Your task to perform on an android device: turn off data saver in the chrome app Image 0: 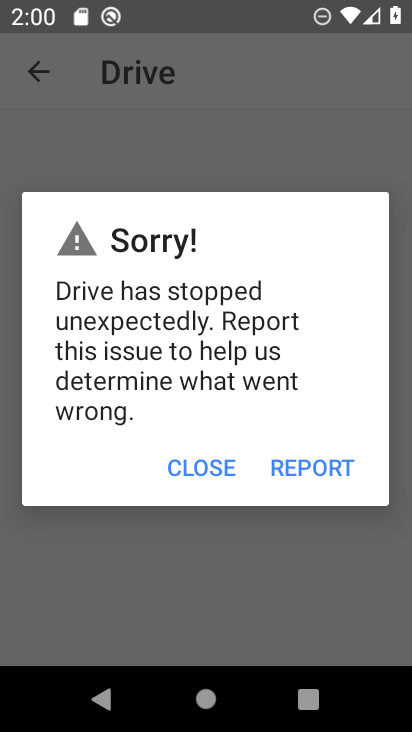
Step 0: click (235, 456)
Your task to perform on an android device: turn off data saver in the chrome app Image 1: 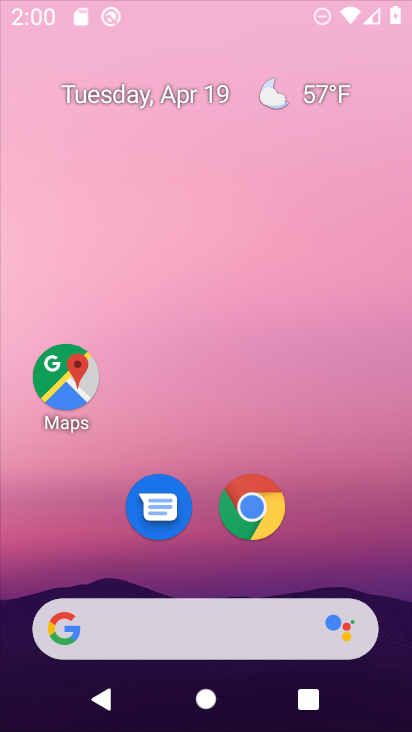
Step 1: press home button
Your task to perform on an android device: turn off data saver in the chrome app Image 2: 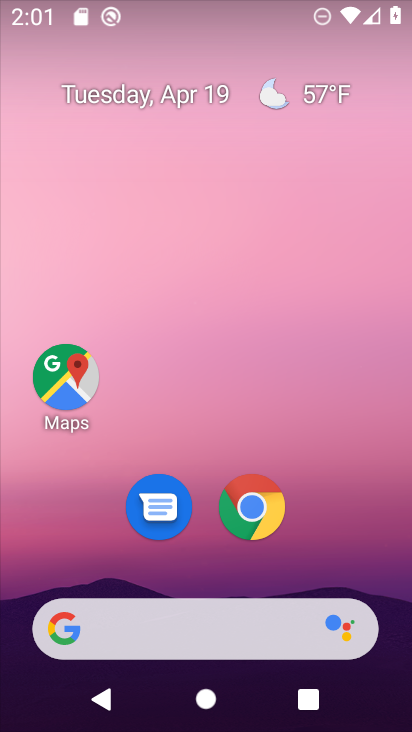
Step 2: click (262, 521)
Your task to perform on an android device: turn off data saver in the chrome app Image 3: 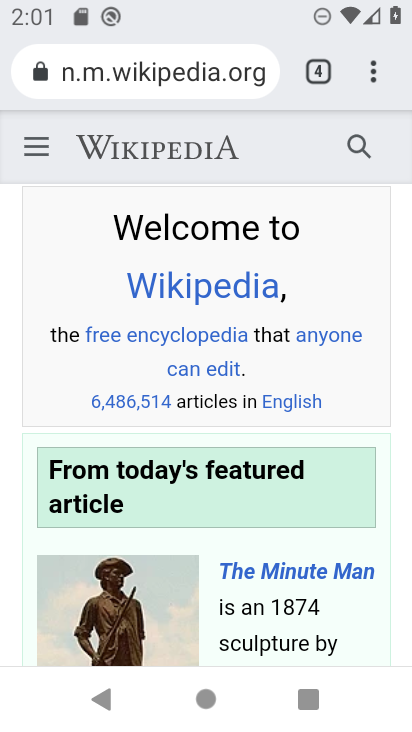
Step 3: click (388, 70)
Your task to perform on an android device: turn off data saver in the chrome app Image 4: 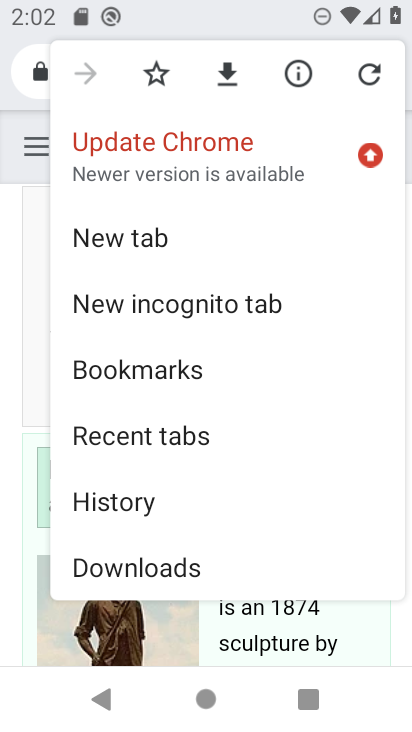
Step 4: drag from (220, 588) to (219, 329)
Your task to perform on an android device: turn off data saver in the chrome app Image 5: 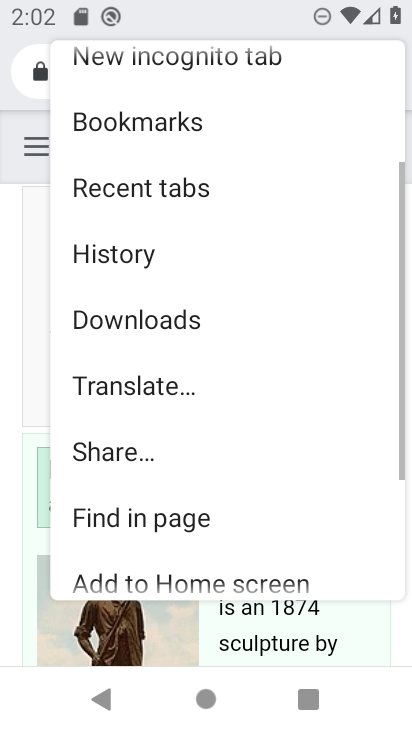
Step 5: drag from (182, 535) to (184, 234)
Your task to perform on an android device: turn off data saver in the chrome app Image 6: 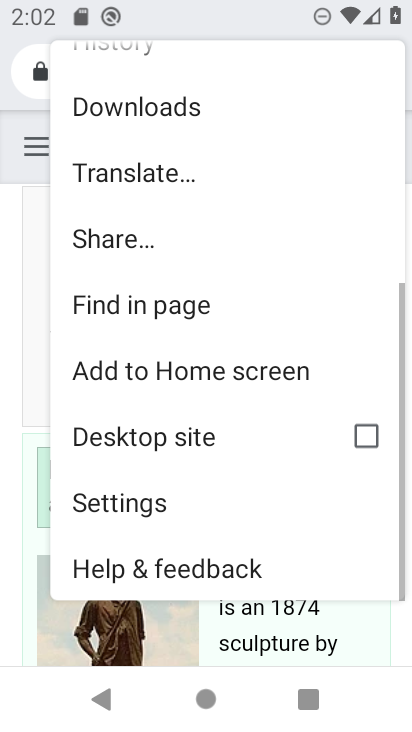
Step 6: click (191, 485)
Your task to perform on an android device: turn off data saver in the chrome app Image 7: 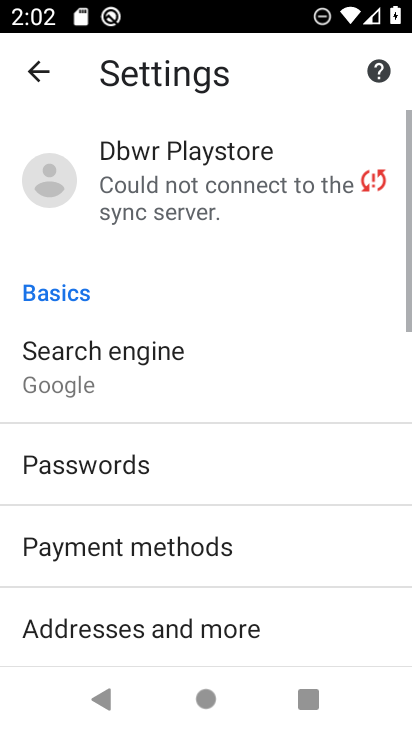
Step 7: drag from (209, 510) to (208, 160)
Your task to perform on an android device: turn off data saver in the chrome app Image 8: 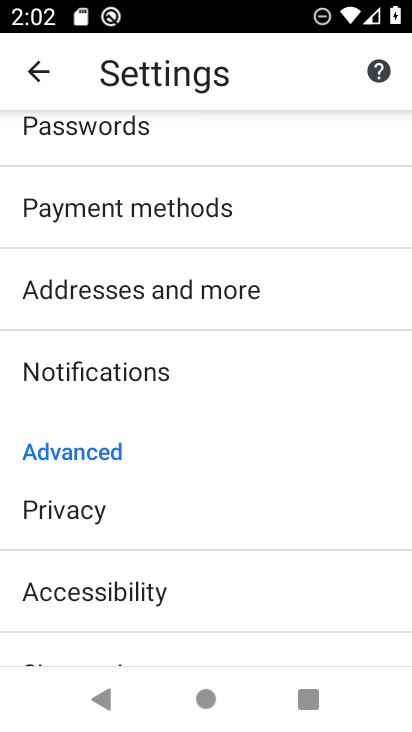
Step 8: drag from (182, 569) to (203, 337)
Your task to perform on an android device: turn off data saver in the chrome app Image 9: 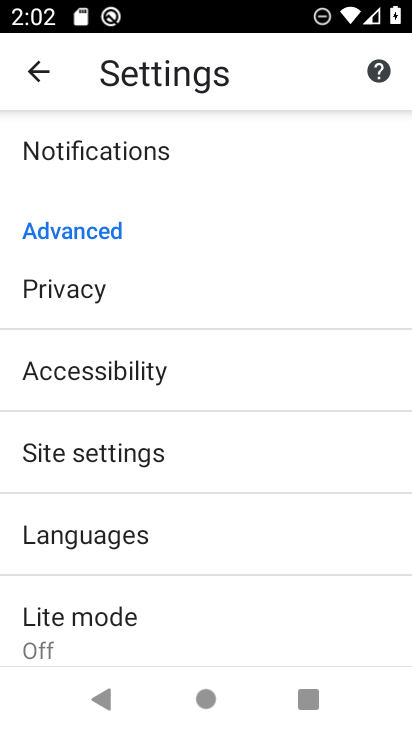
Step 9: click (192, 602)
Your task to perform on an android device: turn off data saver in the chrome app Image 10: 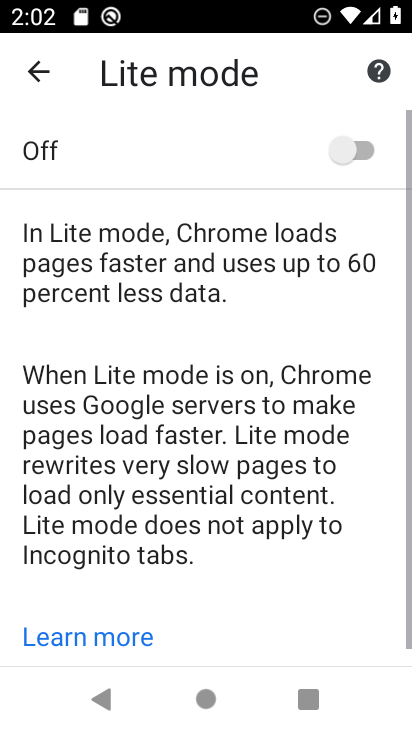
Step 10: task complete